Your task to perform on an android device: change text size in settings app Image 0: 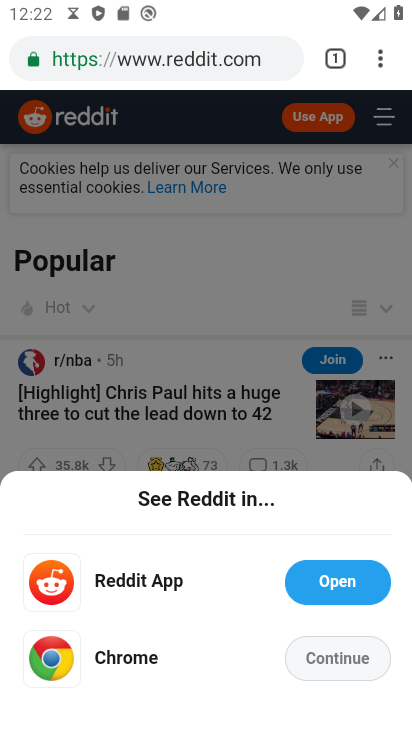
Step 0: press back button
Your task to perform on an android device: change text size in settings app Image 1: 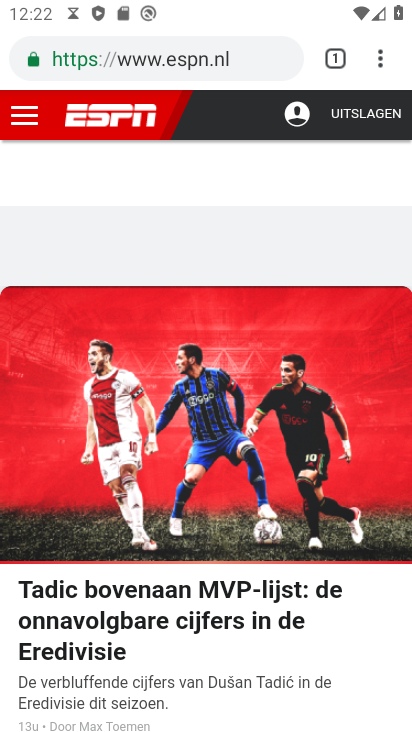
Step 1: press back button
Your task to perform on an android device: change text size in settings app Image 2: 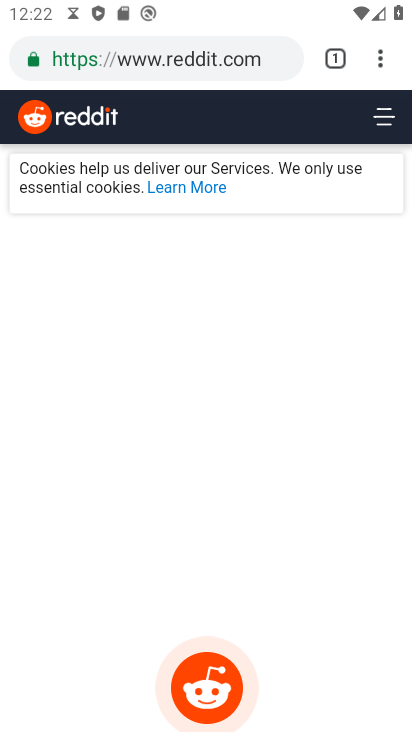
Step 2: press back button
Your task to perform on an android device: change text size in settings app Image 3: 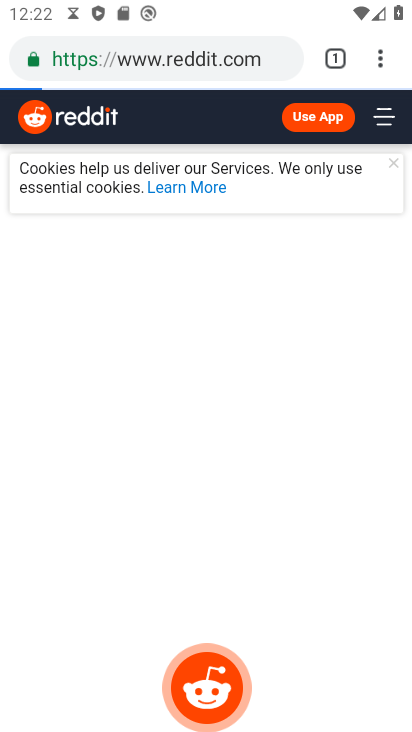
Step 3: press home button
Your task to perform on an android device: change text size in settings app Image 4: 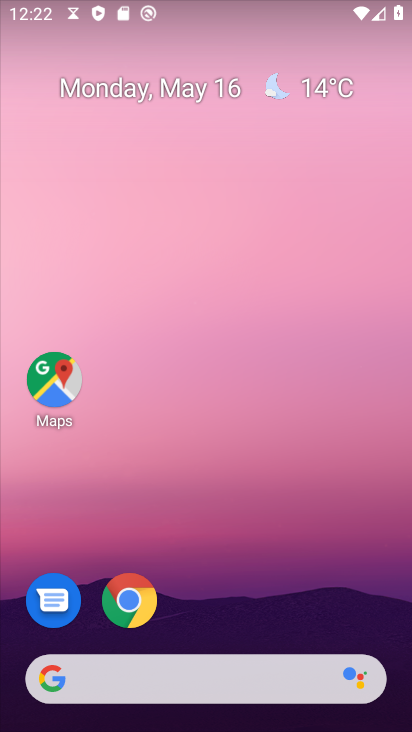
Step 4: drag from (266, 575) to (252, 42)
Your task to perform on an android device: change text size in settings app Image 5: 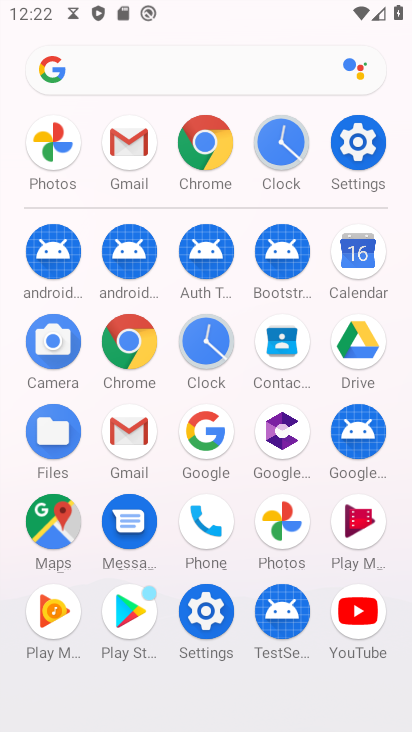
Step 5: click (206, 605)
Your task to perform on an android device: change text size in settings app Image 6: 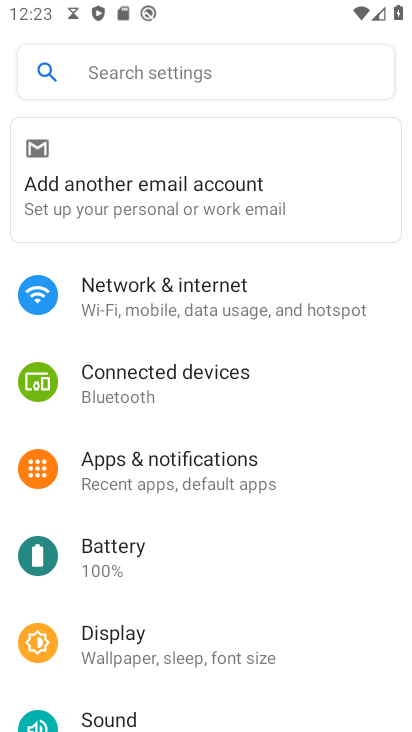
Step 6: drag from (308, 564) to (306, 164)
Your task to perform on an android device: change text size in settings app Image 7: 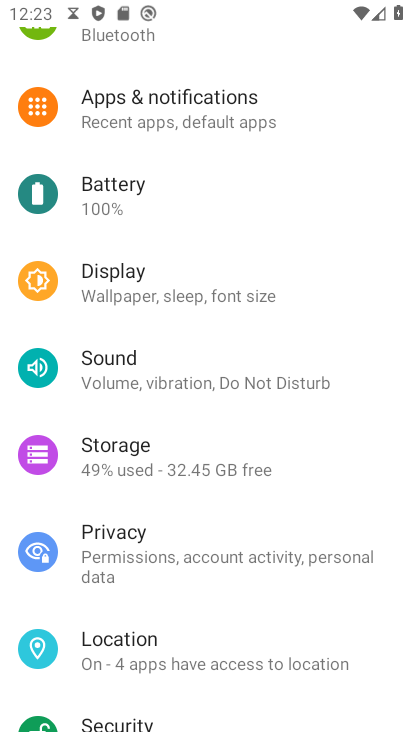
Step 7: drag from (269, 534) to (233, 143)
Your task to perform on an android device: change text size in settings app Image 8: 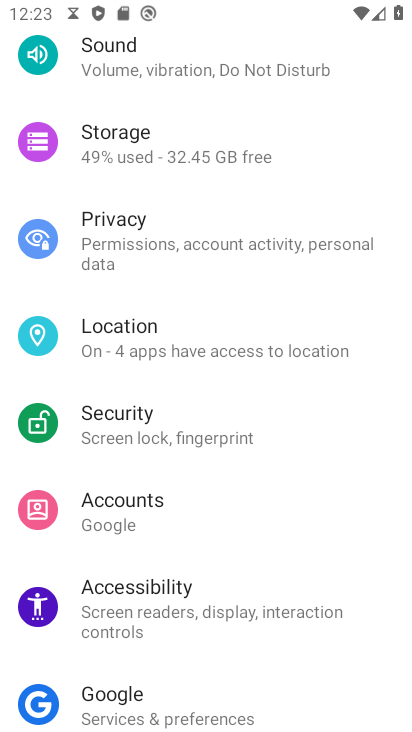
Step 8: drag from (270, 517) to (275, 90)
Your task to perform on an android device: change text size in settings app Image 9: 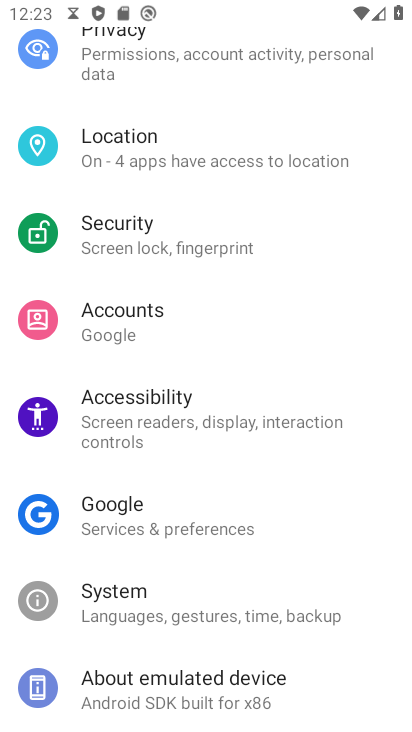
Step 9: drag from (233, 556) to (262, 97)
Your task to perform on an android device: change text size in settings app Image 10: 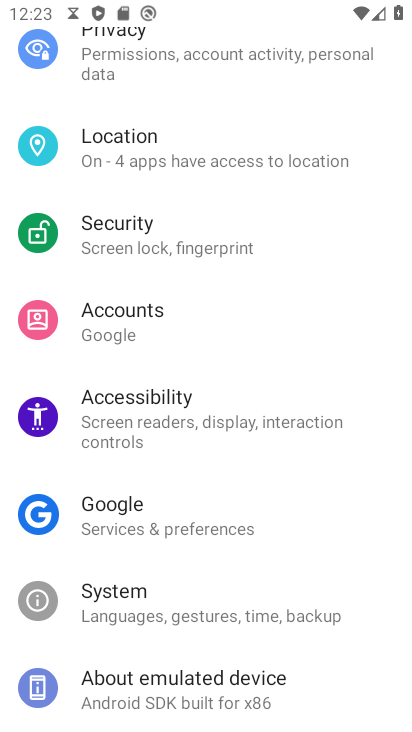
Step 10: drag from (267, 171) to (272, 510)
Your task to perform on an android device: change text size in settings app Image 11: 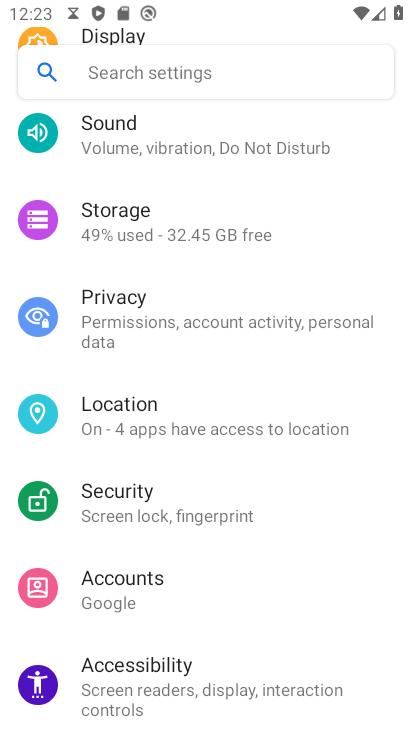
Step 11: drag from (267, 248) to (246, 595)
Your task to perform on an android device: change text size in settings app Image 12: 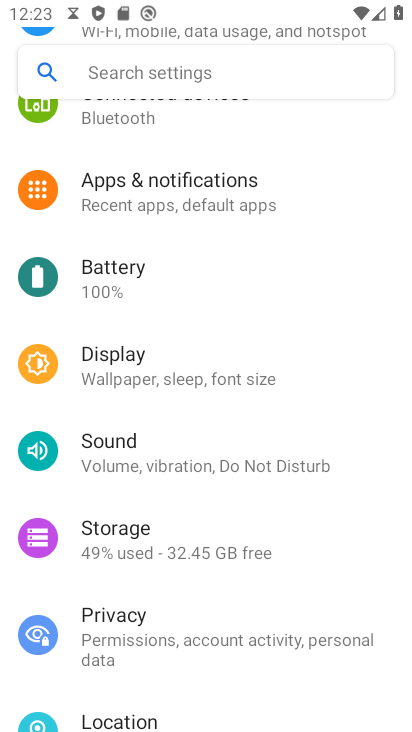
Step 12: drag from (221, 250) to (273, 668)
Your task to perform on an android device: change text size in settings app Image 13: 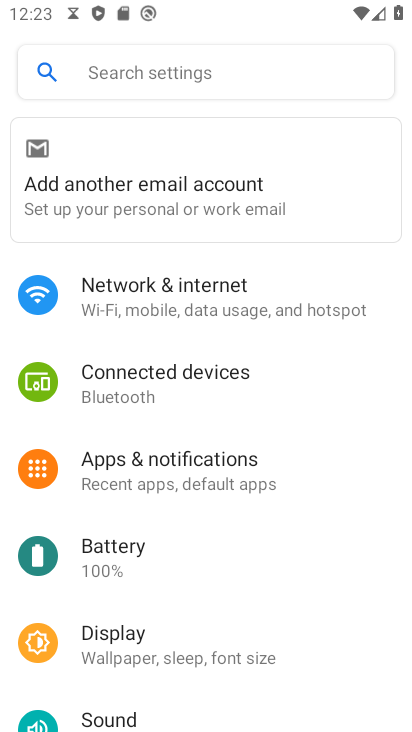
Step 13: click (243, 640)
Your task to perform on an android device: change text size in settings app Image 14: 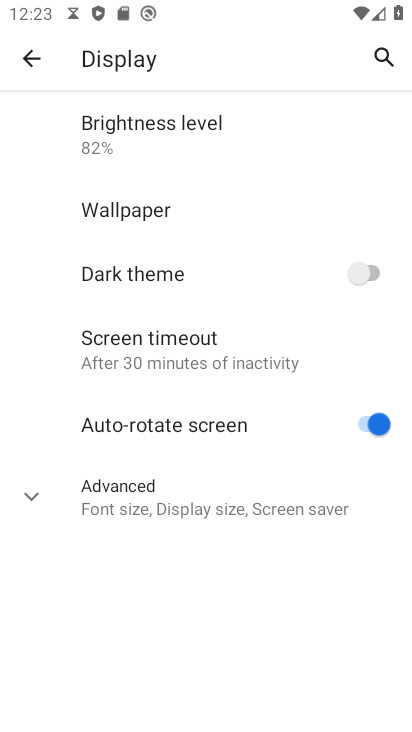
Step 14: click (68, 489)
Your task to perform on an android device: change text size in settings app Image 15: 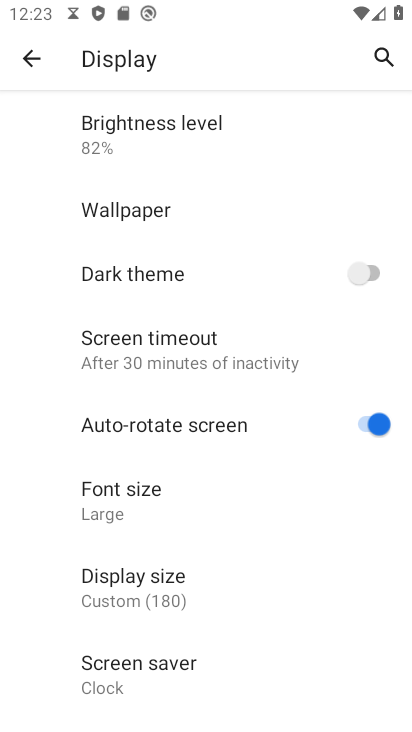
Step 15: click (135, 488)
Your task to perform on an android device: change text size in settings app Image 16: 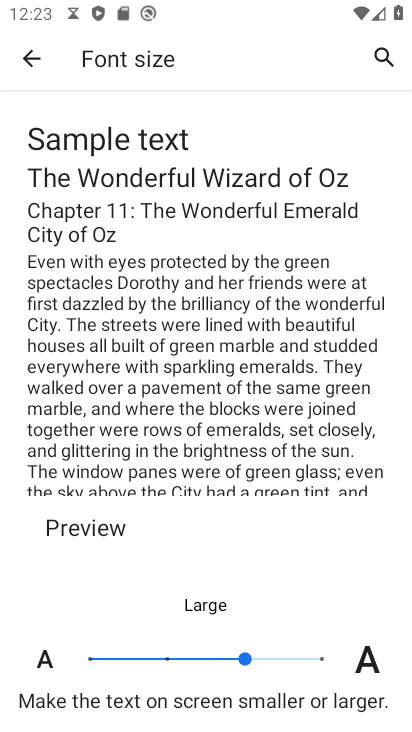
Step 16: click (309, 650)
Your task to perform on an android device: change text size in settings app Image 17: 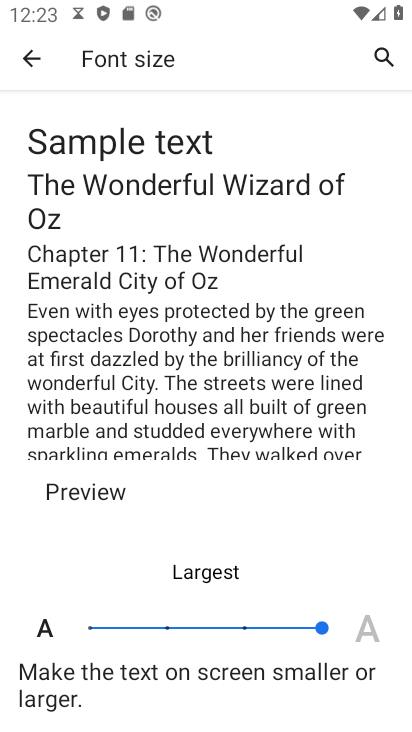
Step 17: task complete